Your task to perform on an android device: stop showing notifications on the lock screen Image 0: 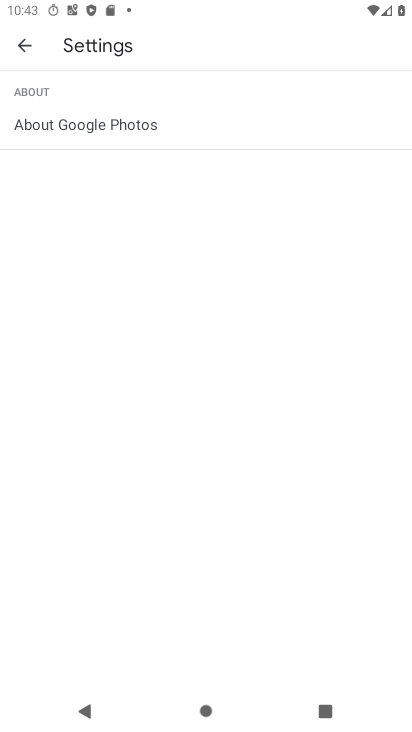
Step 0: press home button
Your task to perform on an android device: stop showing notifications on the lock screen Image 1: 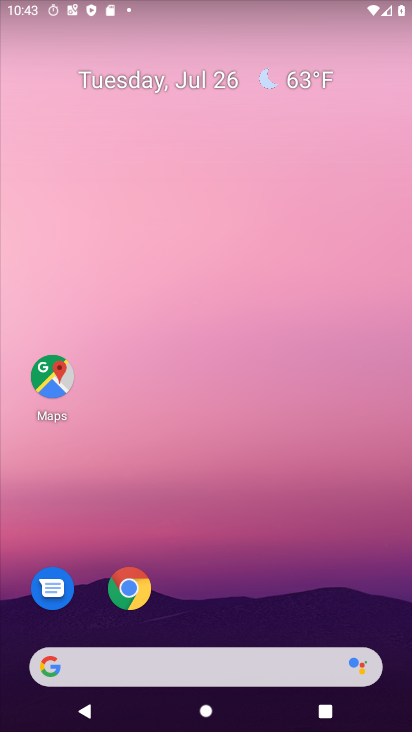
Step 1: drag from (172, 602) to (101, 22)
Your task to perform on an android device: stop showing notifications on the lock screen Image 2: 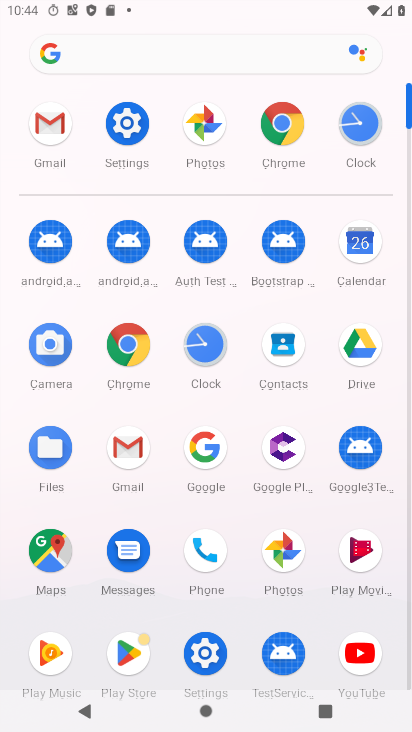
Step 2: click (132, 106)
Your task to perform on an android device: stop showing notifications on the lock screen Image 3: 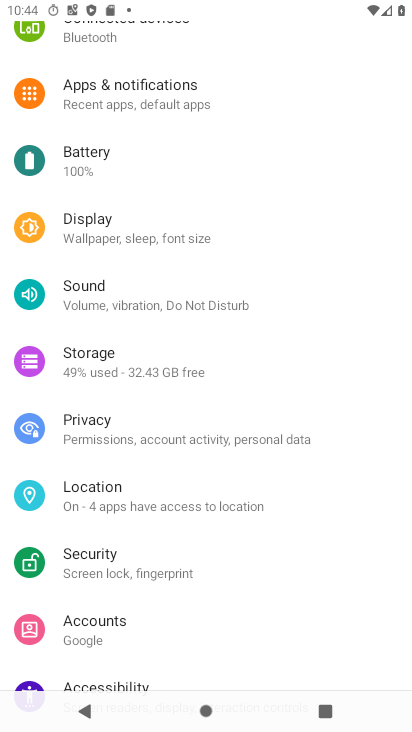
Step 3: click (124, 94)
Your task to perform on an android device: stop showing notifications on the lock screen Image 4: 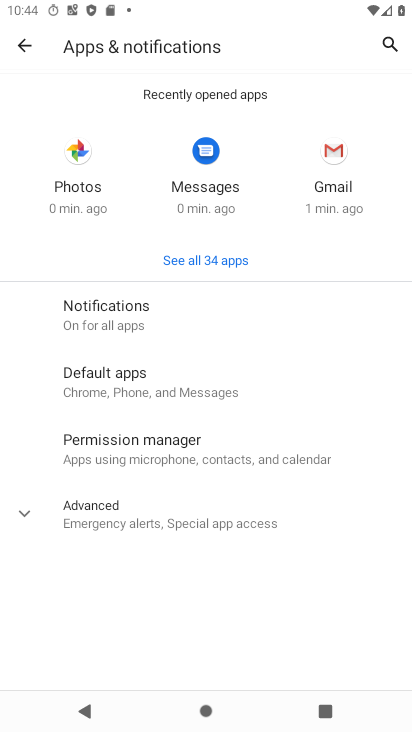
Step 4: click (123, 322)
Your task to perform on an android device: stop showing notifications on the lock screen Image 5: 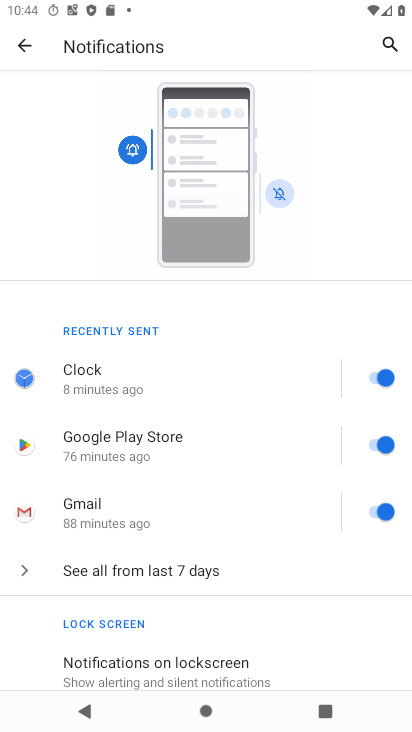
Step 5: click (178, 666)
Your task to perform on an android device: stop showing notifications on the lock screen Image 6: 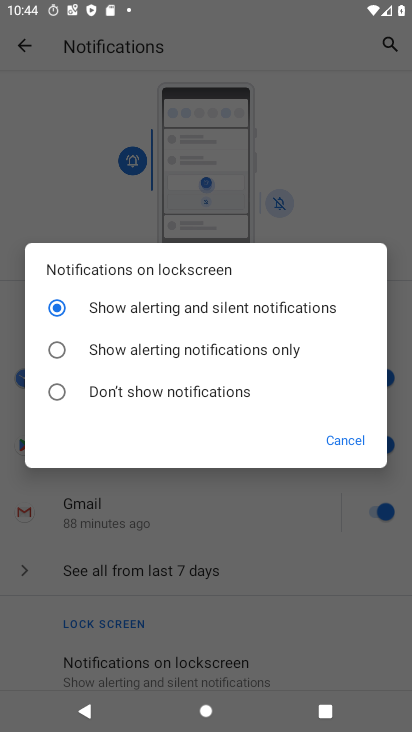
Step 6: click (145, 401)
Your task to perform on an android device: stop showing notifications on the lock screen Image 7: 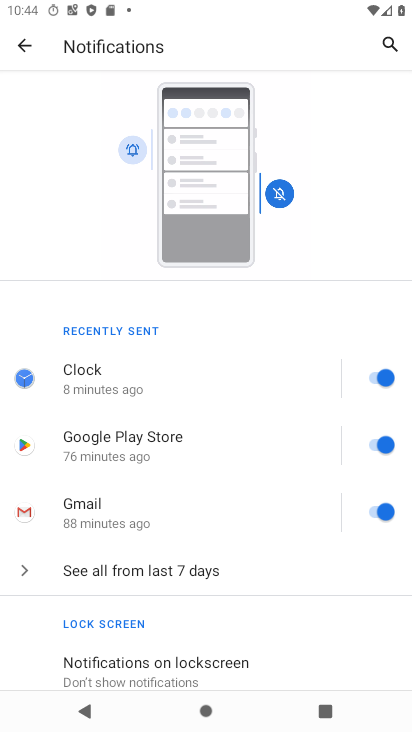
Step 7: task complete